Your task to perform on an android device: turn on data saver in the chrome app Image 0: 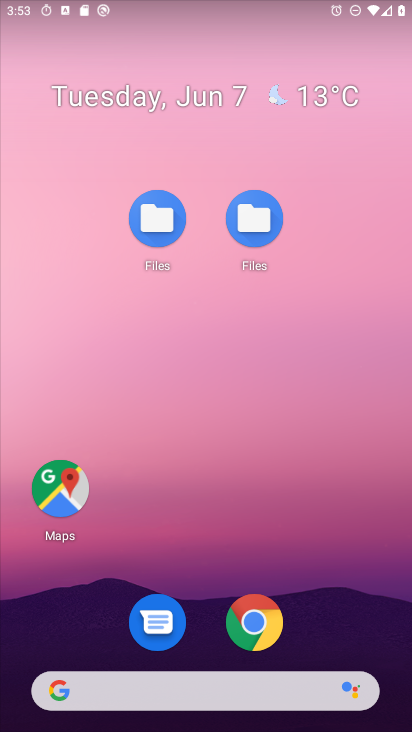
Step 0: click (256, 622)
Your task to perform on an android device: turn on data saver in the chrome app Image 1: 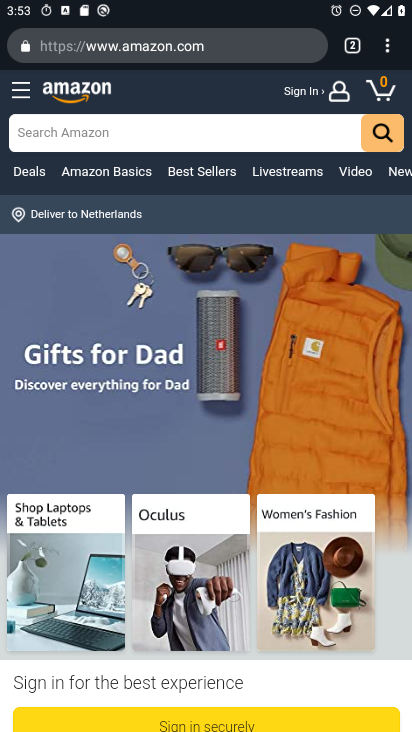
Step 1: click (383, 42)
Your task to perform on an android device: turn on data saver in the chrome app Image 2: 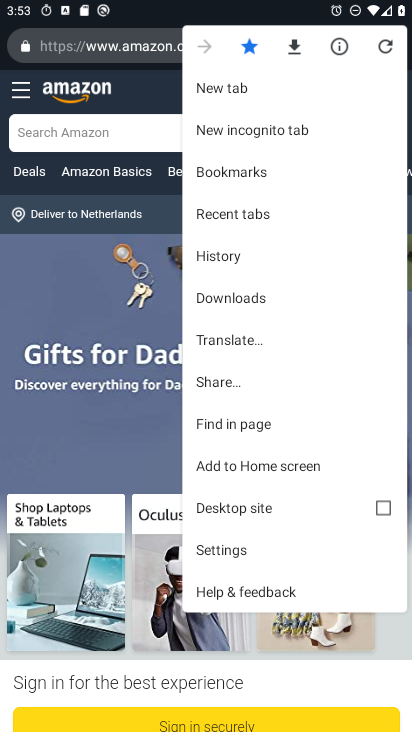
Step 2: click (222, 548)
Your task to perform on an android device: turn on data saver in the chrome app Image 3: 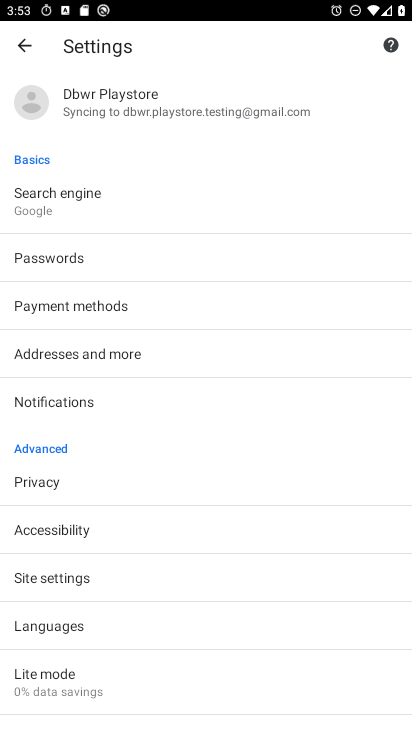
Step 3: drag from (233, 690) to (221, 351)
Your task to perform on an android device: turn on data saver in the chrome app Image 4: 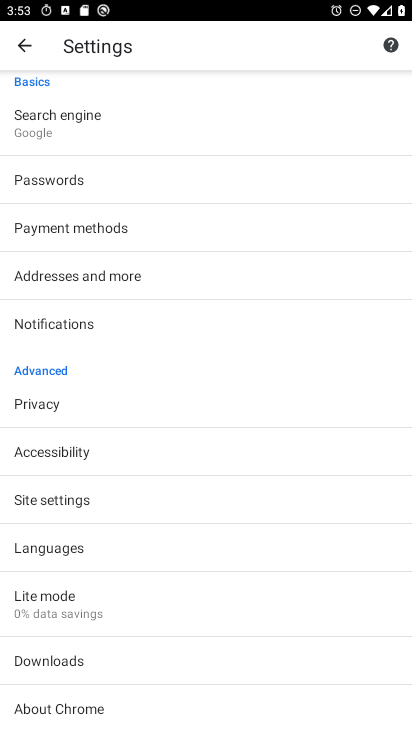
Step 4: click (105, 402)
Your task to perform on an android device: turn on data saver in the chrome app Image 5: 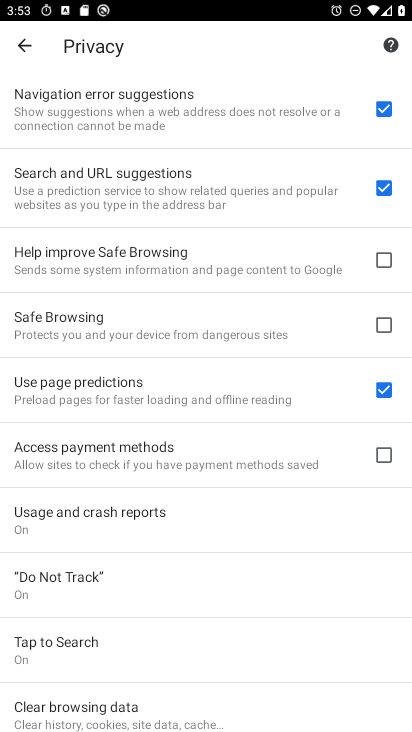
Step 5: task complete